Your task to perform on an android device: change timer sound Image 0: 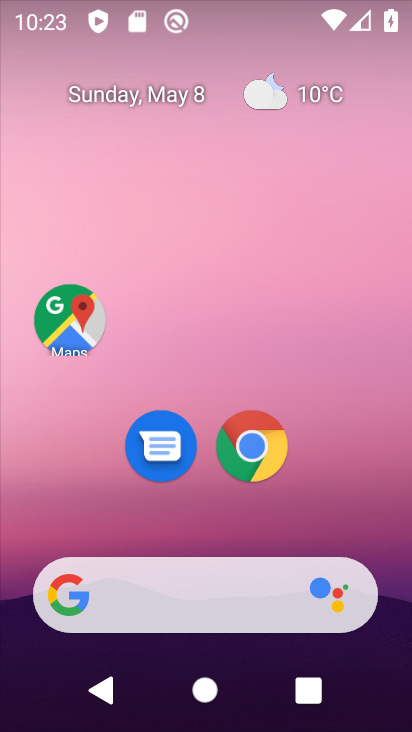
Step 0: drag from (345, 541) to (381, 29)
Your task to perform on an android device: change timer sound Image 1: 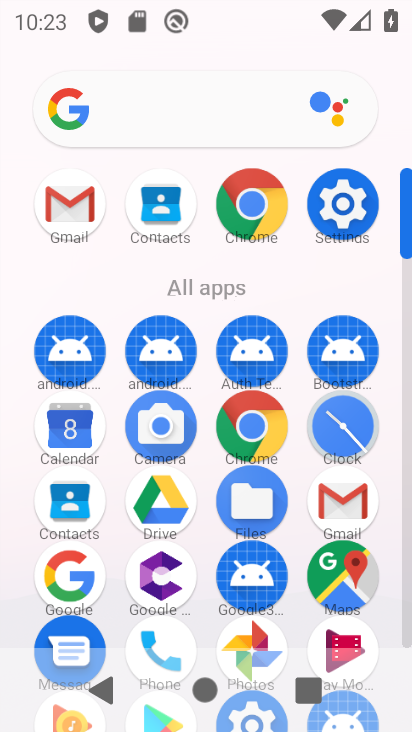
Step 1: click (340, 427)
Your task to perform on an android device: change timer sound Image 2: 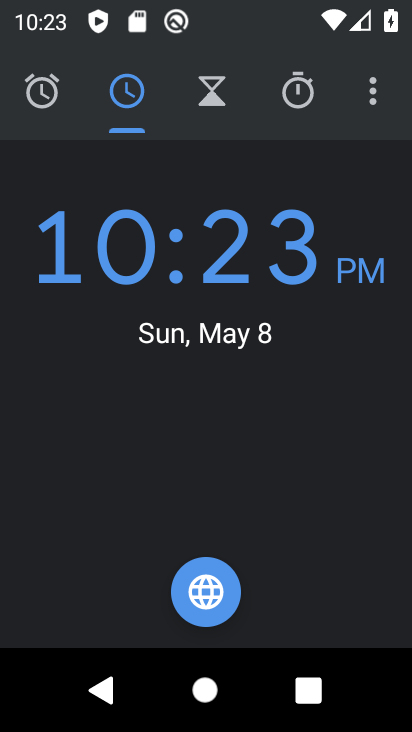
Step 2: click (371, 93)
Your task to perform on an android device: change timer sound Image 3: 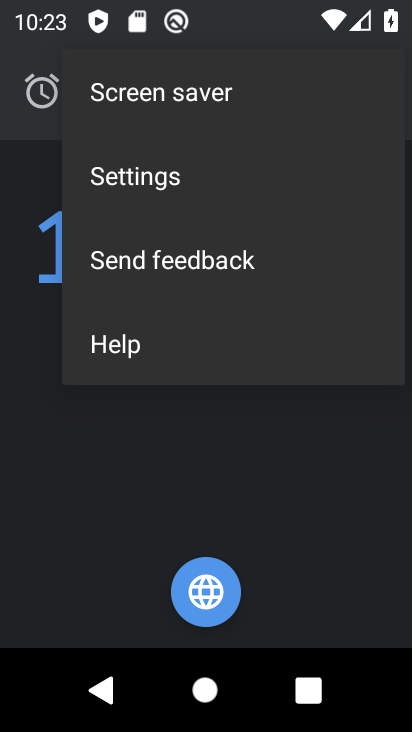
Step 3: click (137, 186)
Your task to perform on an android device: change timer sound Image 4: 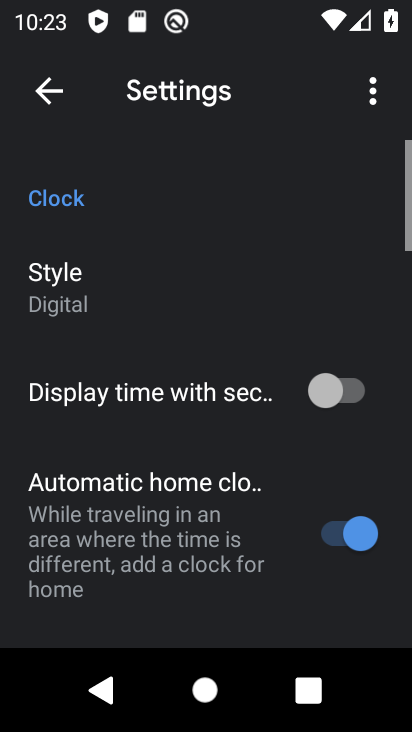
Step 4: drag from (174, 480) to (176, 162)
Your task to perform on an android device: change timer sound Image 5: 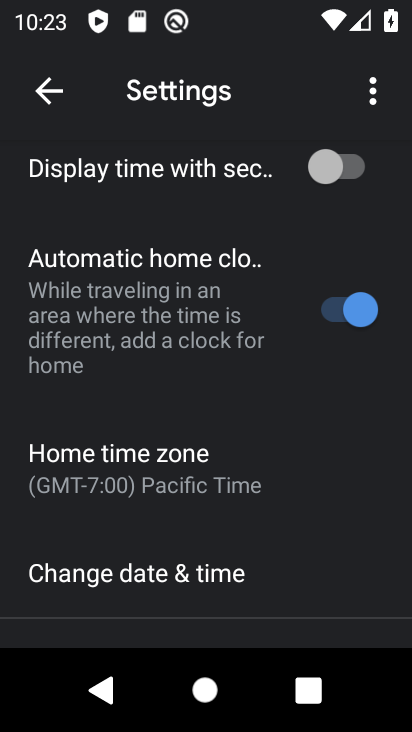
Step 5: drag from (138, 435) to (158, 96)
Your task to perform on an android device: change timer sound Image 6: 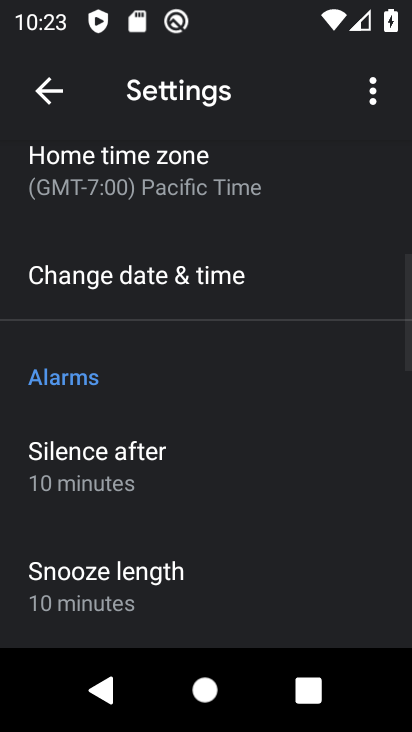
Step 6: drag from (143, 384) to (140, 78)
Your task to perform on an android device: change timer sound Image 7: 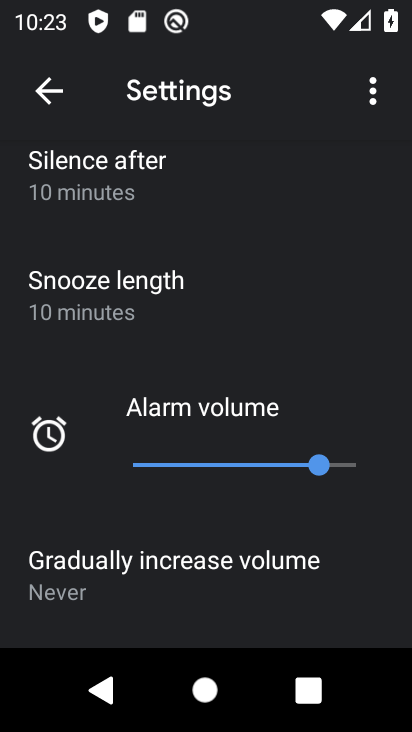
Step 7: drag from (174, 346) to (177, 76)
Your task to perform on an android device: change timer sound Image 8: 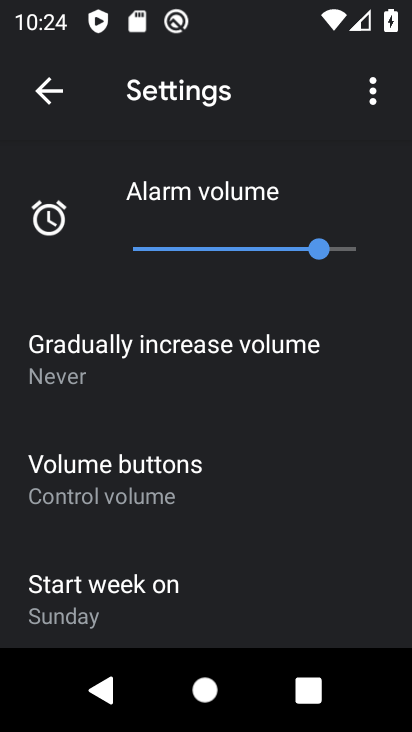
Step 8: drag from (145, 434) to (148, 115)
Your task to perform on an android device: change timer sound Image 9: 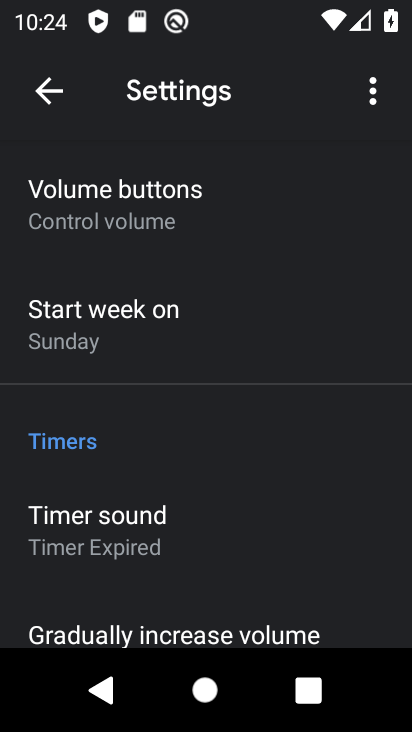
Step 9: drag from (125, 407) to (141, 170)
Your task to perform on an android device: change timer sound Image 10: 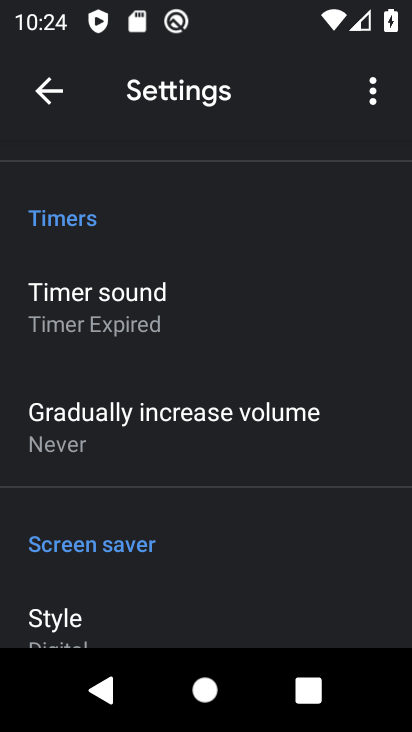
Step 10: click (85, 314)
Your task to perform on an android device: change timer sound Image 11: 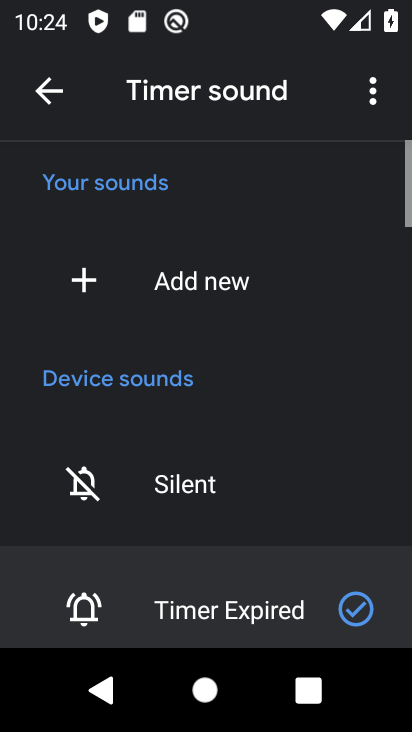
Step 11: drag from (264, 437) to (281, 187)
Your task to perform on an android device: change timer sound Image 12: 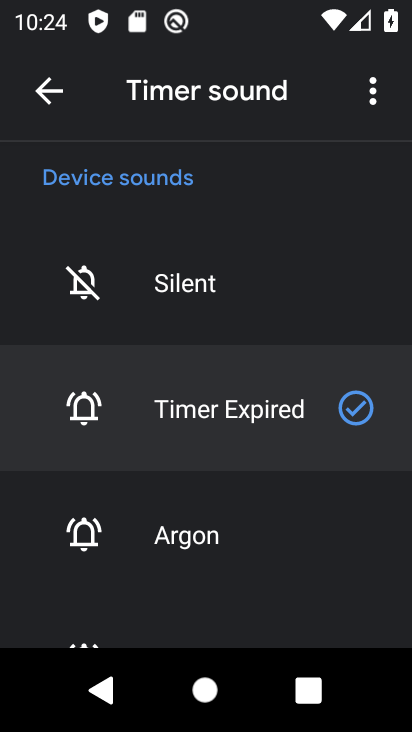
Step 12: click (144, 531)
Your task to perform on an android device: change timer sound Image 13: 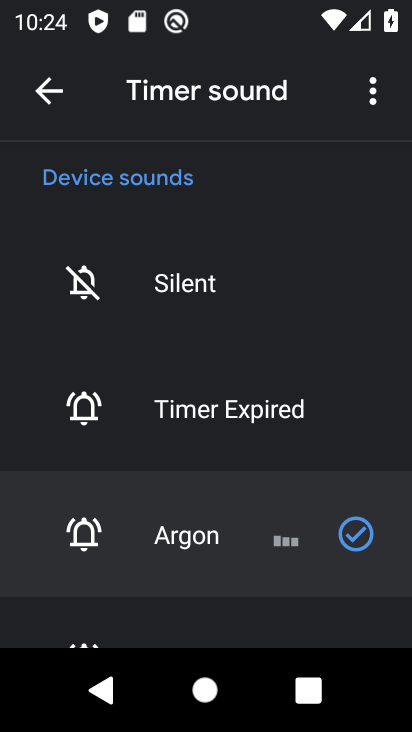
Step 13: task complete